Your task to perform on an android device: When is my next meeting? Image 0: 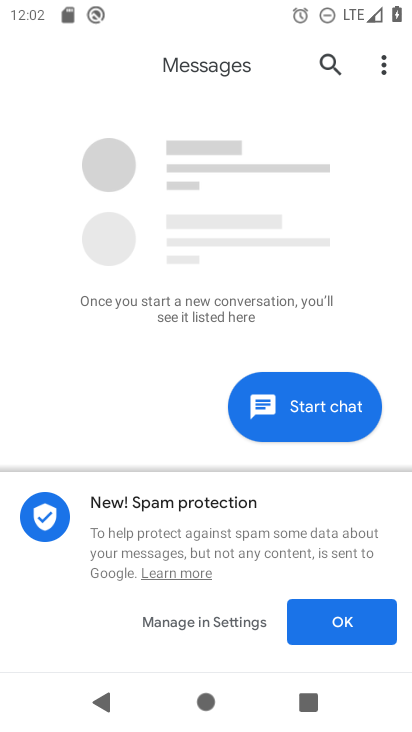
Step 0: press home button
Your task to perform on an android device: When is my next meeting? Image 1: 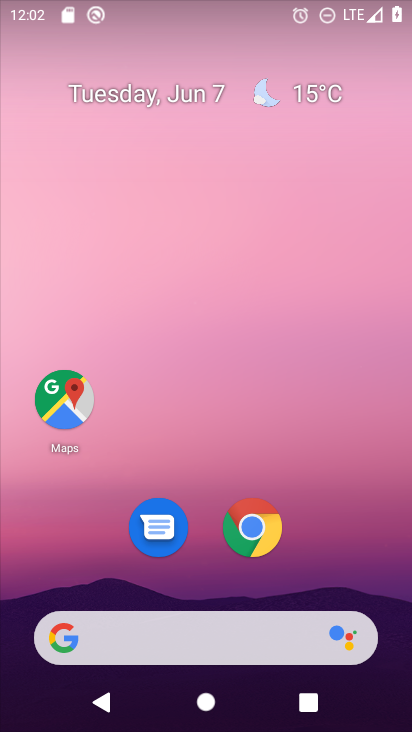
Step 1: drag from (391, 550) to (359, 106)
Your task to perform on an android device: When is my next meeting? Image 2: 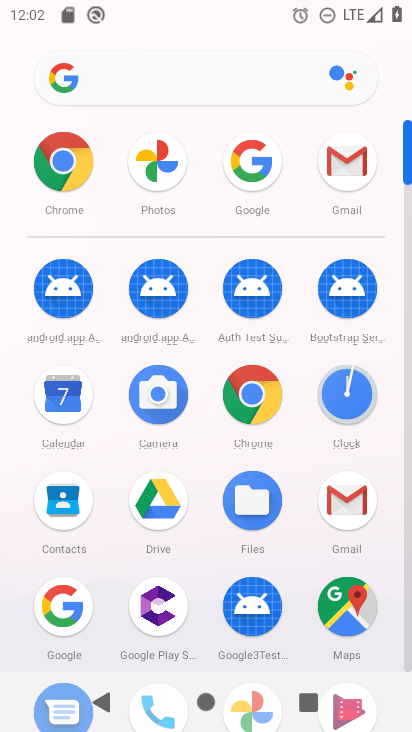
Step 2: click (57, 400)
Your task to perform on an android device: When is my next meeting? Image 3: 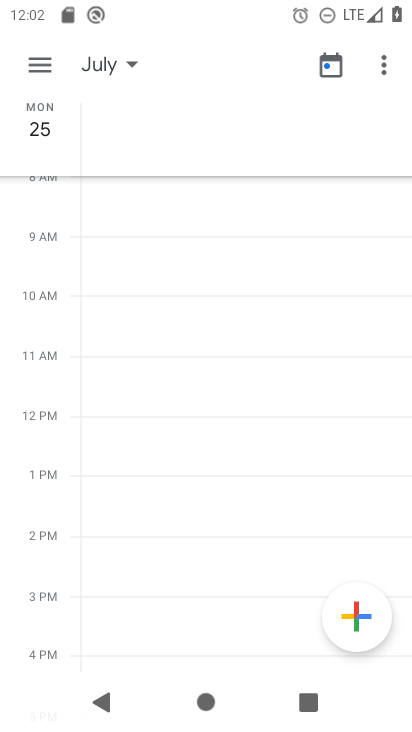
Step 3: click (134, 63)
Your task to perform on an android device: When is my next meeting? Image 4: 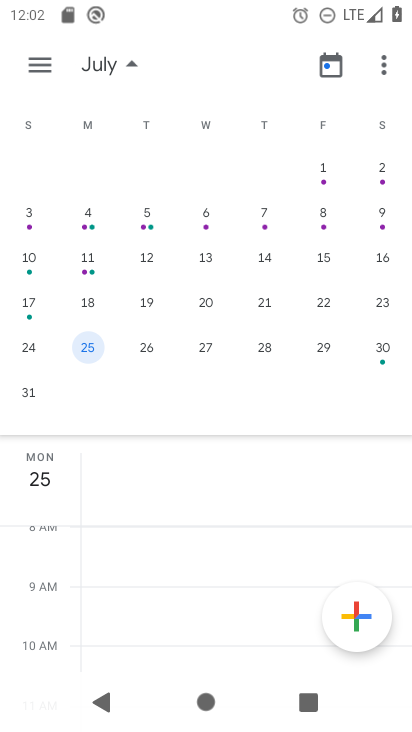
Step 4: drag from (34, 163) to (400, 226)
Your task to perform on an android device: When is my next meeting? Image 5: 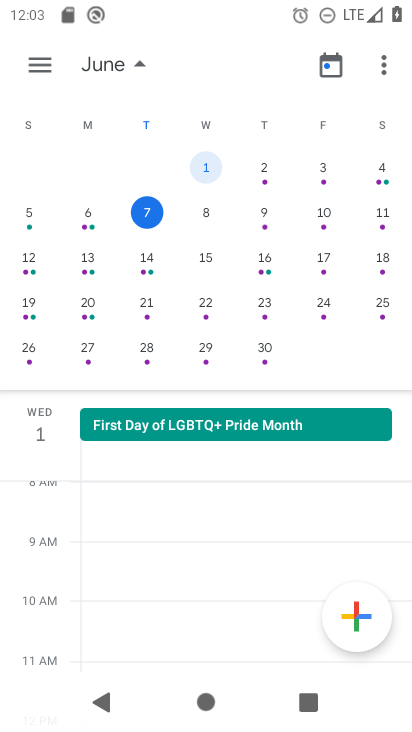
Step 5: click (208, 213)
Your task to perform on an android device: When is my next meeting? Image 6: 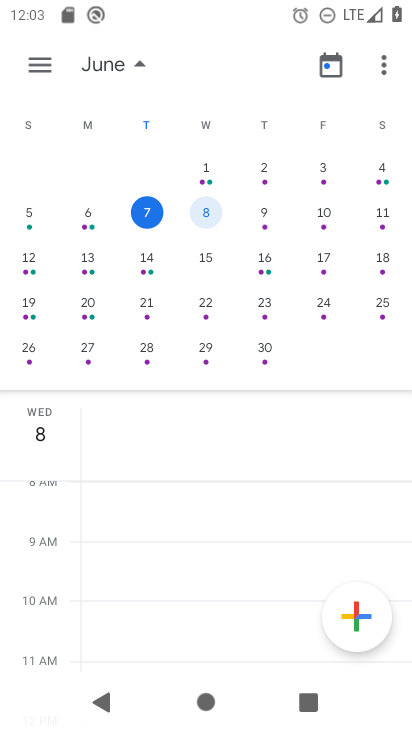
Step 6: click (42, 65)
Your task to perform on an android device: When is my next meeting? Image 7: 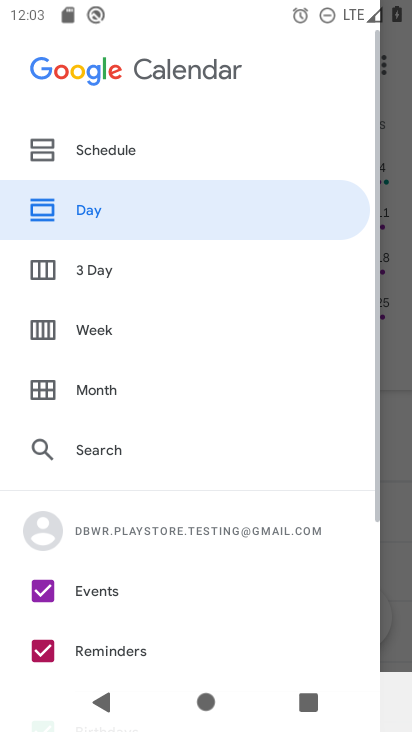
Step 7: click (138, 130)
Your task to perform on an android device: When is my next meeting? Image 8: 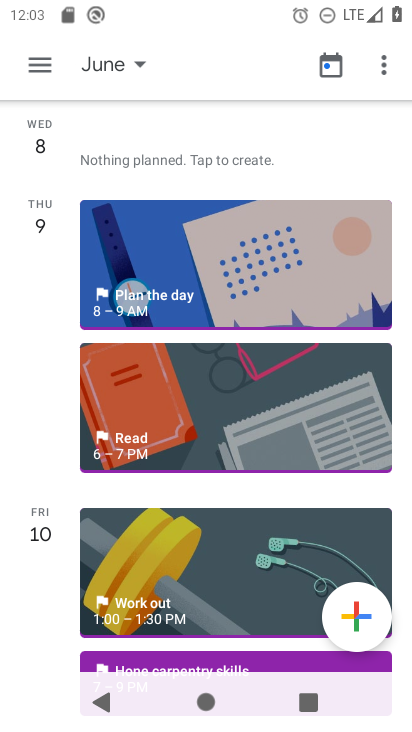
Step 8: click (255, 409)
Your task to perform on an android device: When is my next meeting? Image 9: 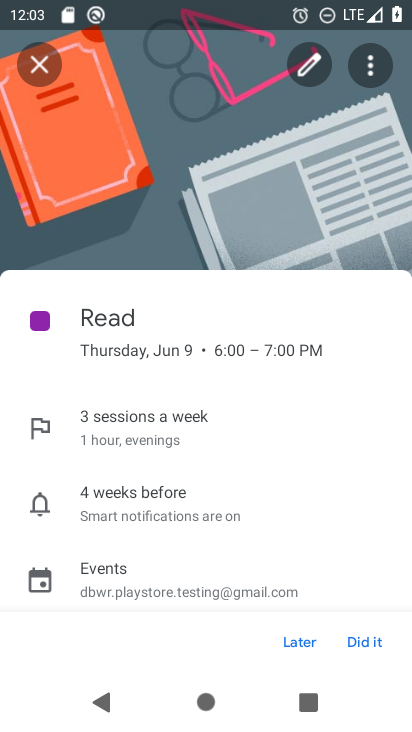
Step 9: task complete